Your task to perform on an android device: Open Google Maps and go to "Timeline" Image 0: 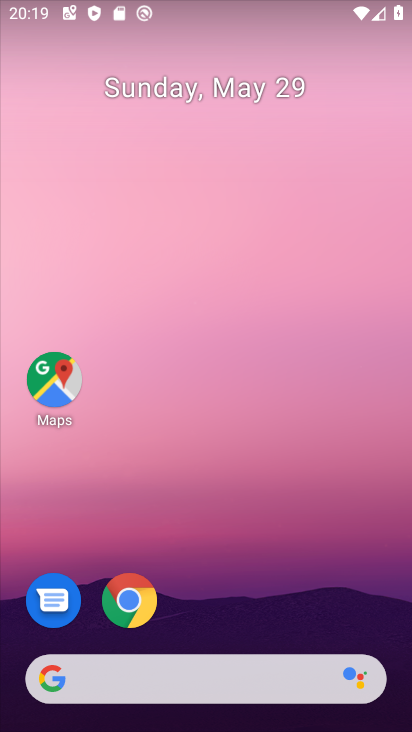
Step 0: drag from (302, 580) to (305, 217)
Your task to perform on an android device: Open Google Maps and go to "Timeline" Image 1: 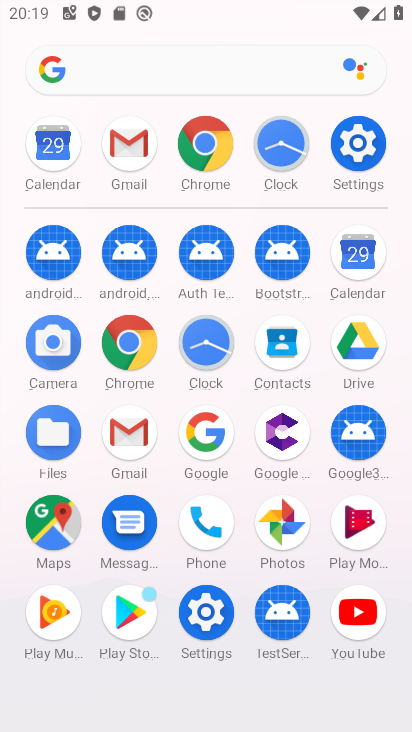
Step 1: click (46, 529)
Your task to perform on an android device: Open Google Maps and go to "Timeline" Image 2: 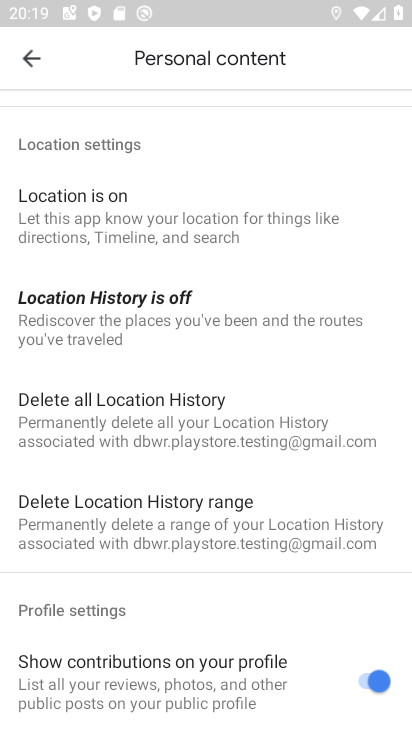
Step 2: task complete